Your task to perform on an android device: Find coffee shops on Maps Image 0: 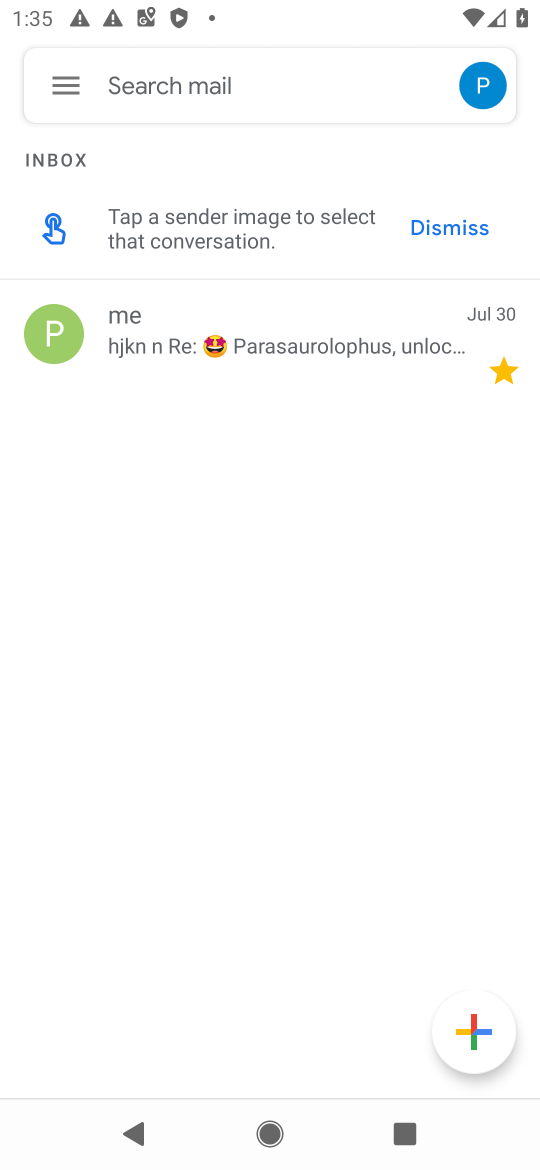
Step 0: press home button
Your task to perform on an android device: Find coffee shops on Maps Image 1: 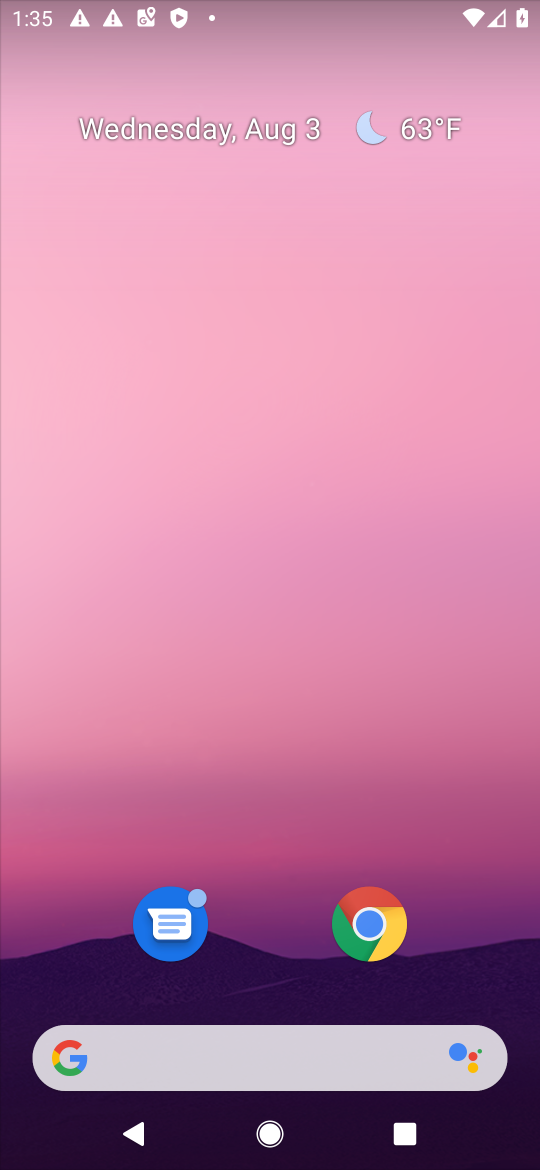
Step 1: drag from (276, 968) to (265, 205)
Your task to perform on an android device: Find coffee shops on Maps Image 2: 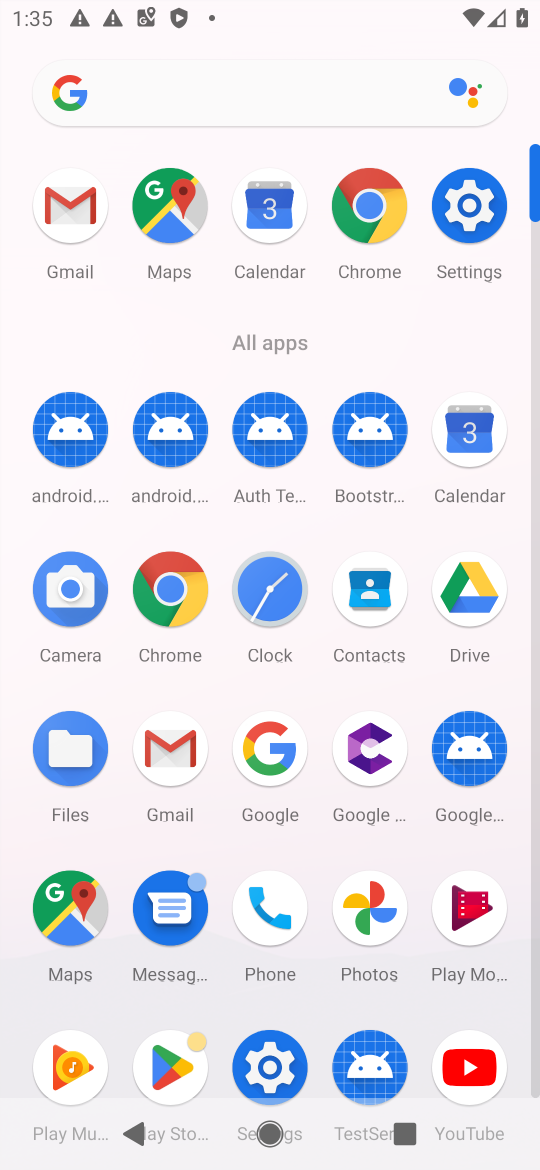
Step 2: click (75, 902)
Your task to perform on an android device: Find coffee shops on Maps Image 3: 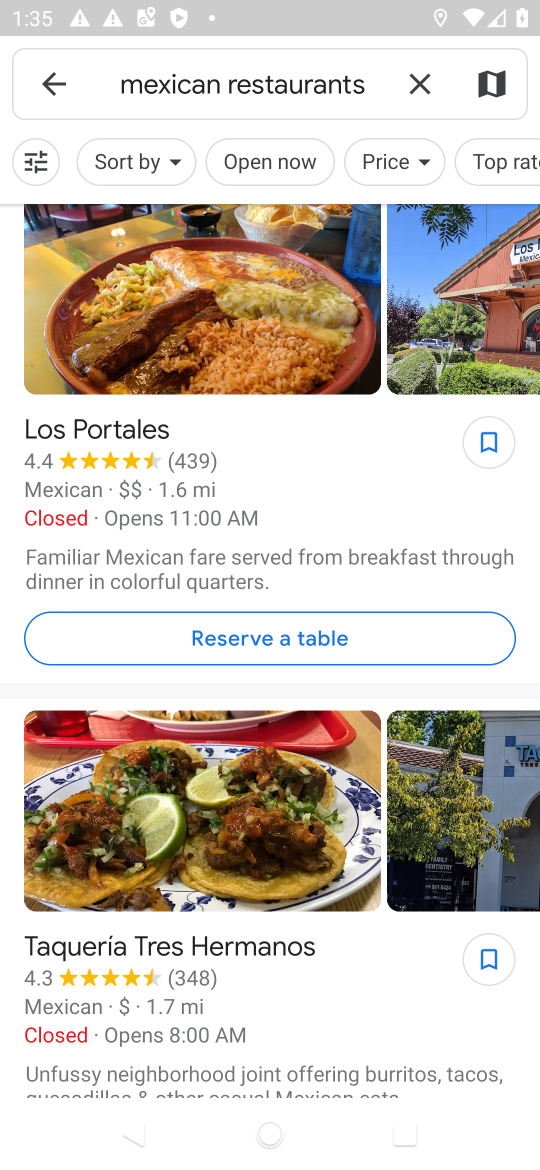
Step 3: click (403, 77)
Your task to perform on an android device: Find coffee shops on Maps Image 4: 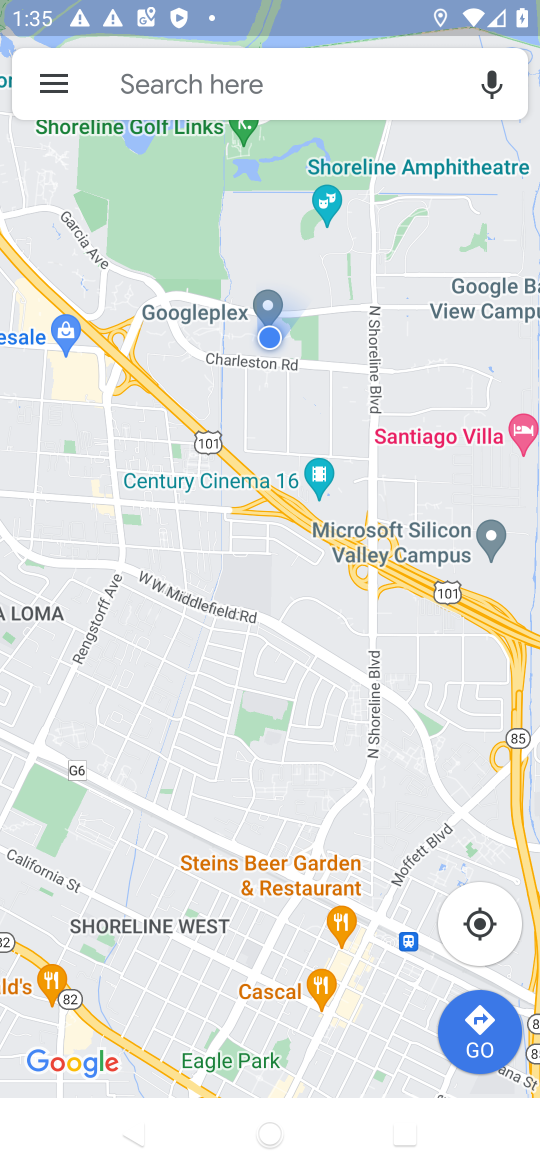
Step 4: click (181, 80)
Your task to perform on an android device: Find coffee shops on Maps Image 5: 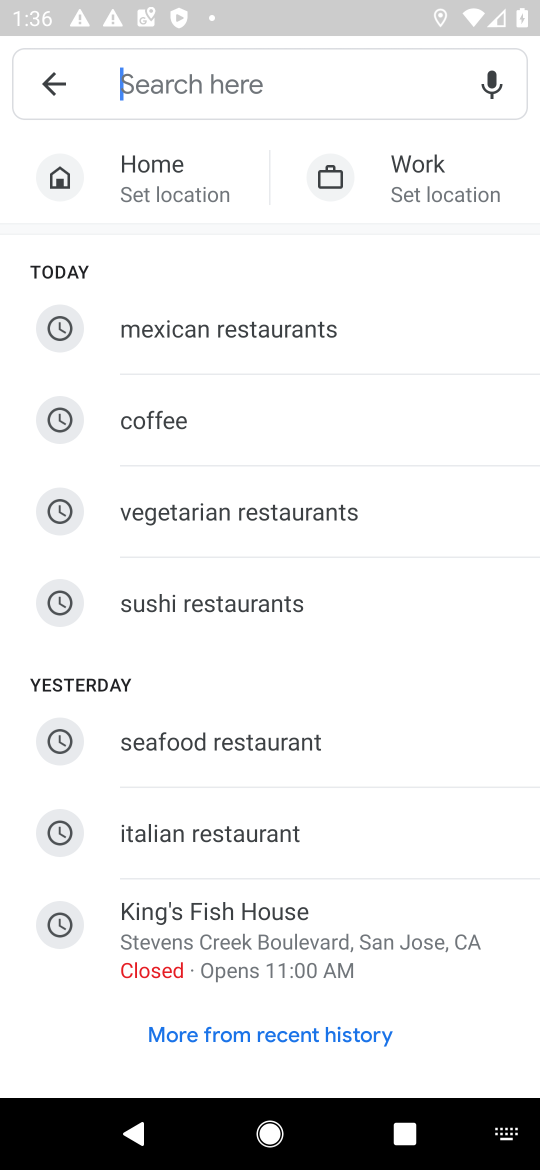
Step 5: click (177, 412)
Your task to perform on an android device: Find coffee shops on Maps Image 6: 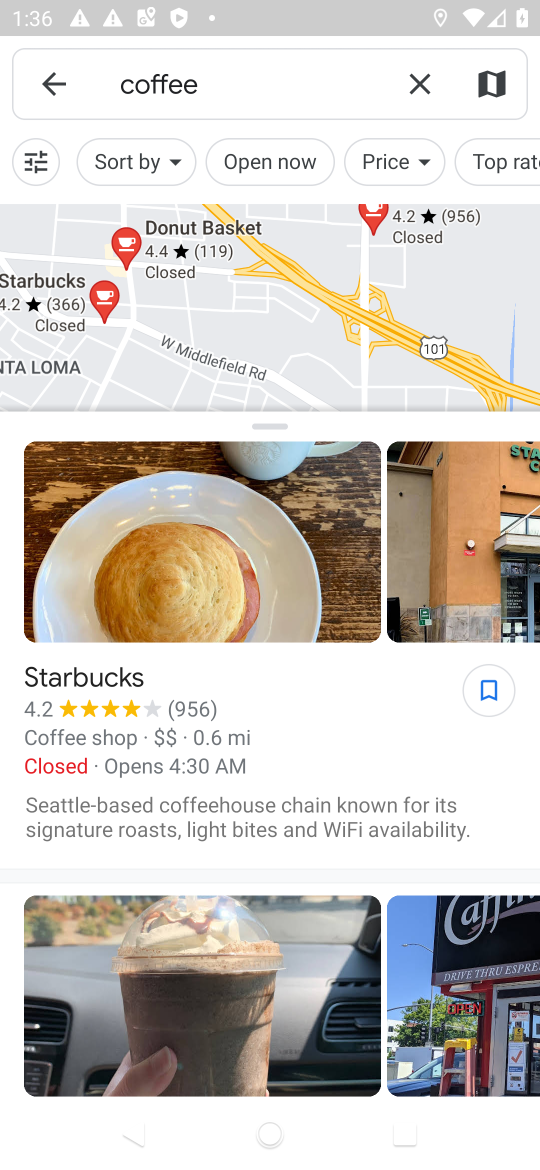
Step 6: task complete